Your task to perform on an android device: change timer sound Image 0: 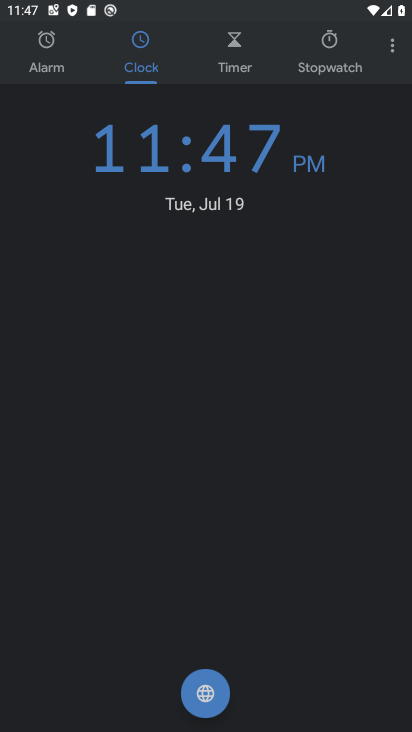
Step 0: drag from (325, 635) to (293, 191)
Your task to perform on an android device: change timer sound Image 1: 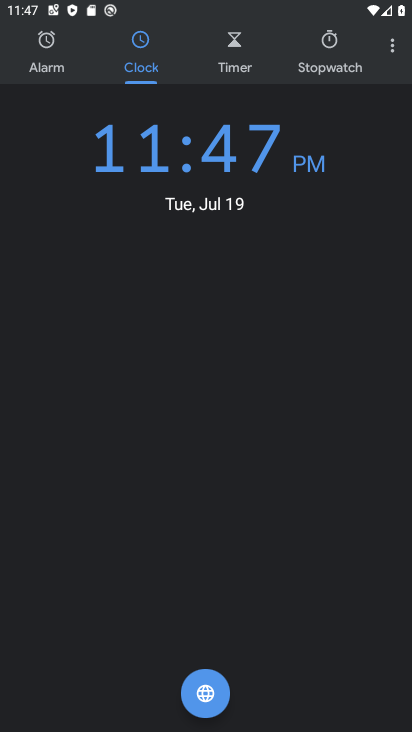
Step 1: press back button
Your task to perform on an android device: change timer sound Image 2: 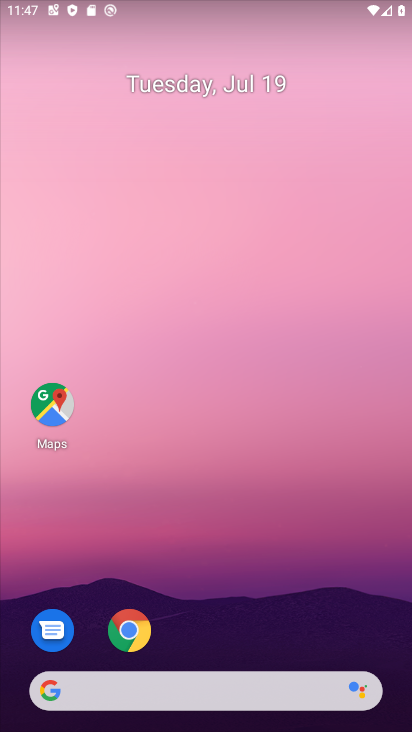
Step 2: drag from (229, 637) to (126, 75)
Your task to perform on an android device: change timer sound Image 3: 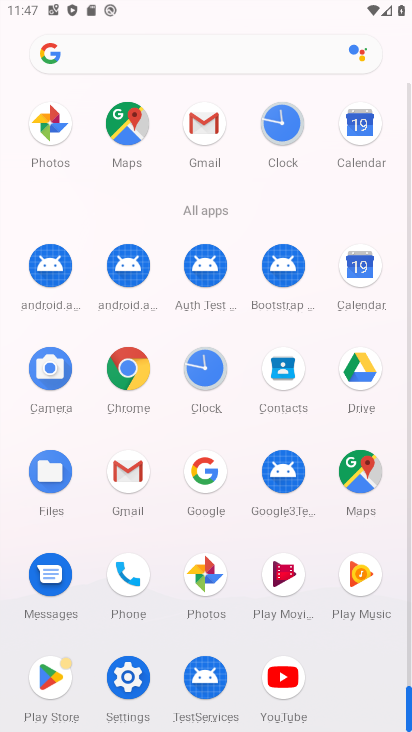
Step 3: click (274, 127)
Your task to perform on an android device: change timer sound Image 4: 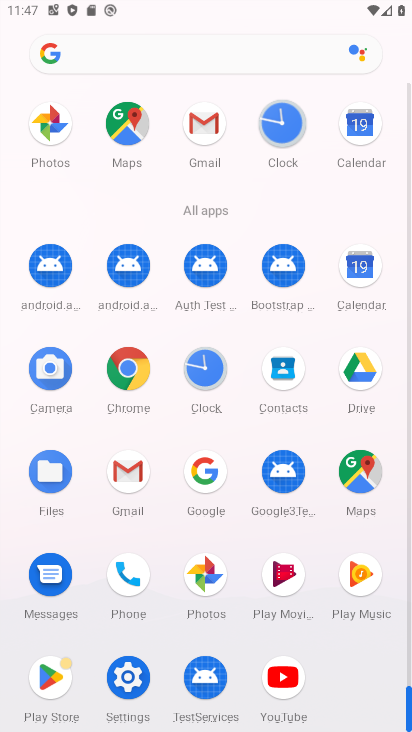
Step 4: click (276, 126)
Your task to perform on an android device: change timer sound Image 5: 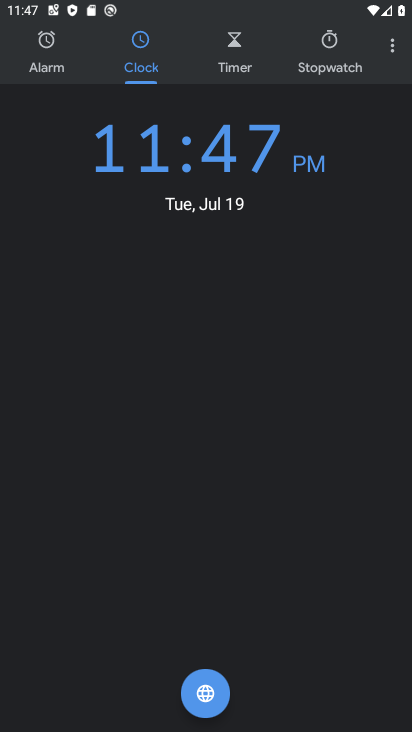
Step 5: click (383, 45)
Your task to perform on an android device: change timer sound Image 6: 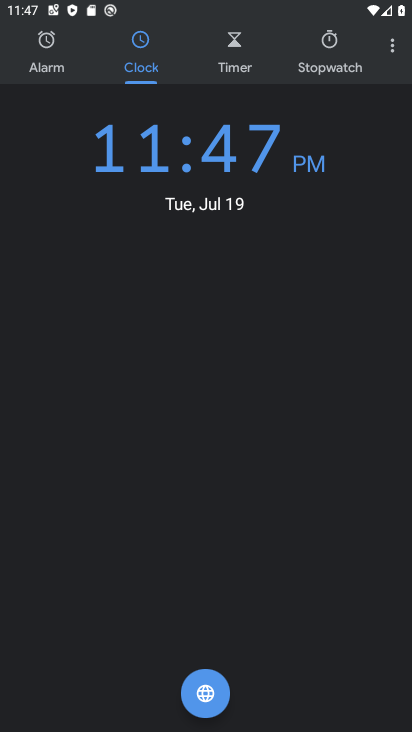
Step 6: click (383, 45)
Your task to perform on an android device: change timer sound Image 7: 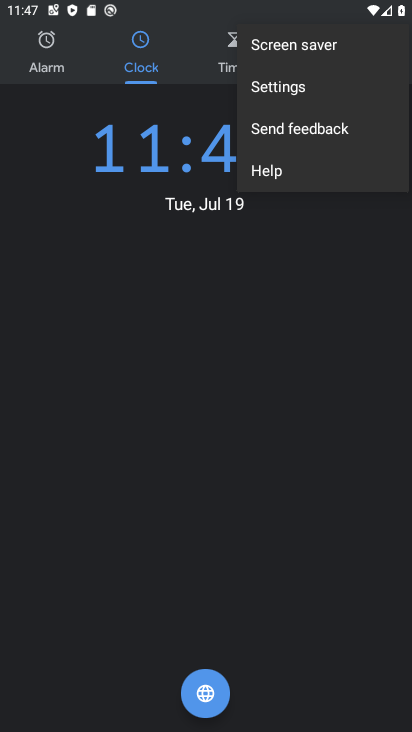
Step 7: click (278, 90)
Your task to perform on an android device: change timer sound Image 8: 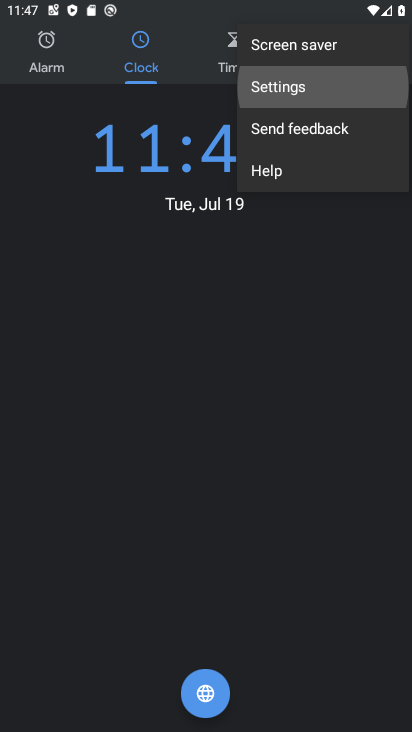
Step 8: click (290, 75)
Your task to perform on an android device: change timer sound Image 9: 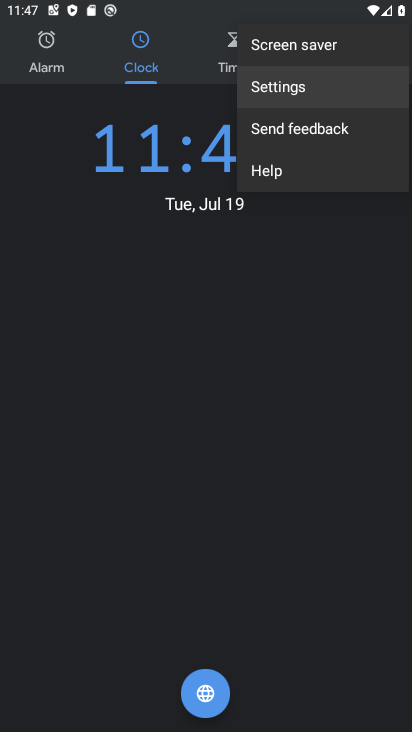
Step 9: click (291, 77)
Your task to perform on an android device: change timer sound Image 10: 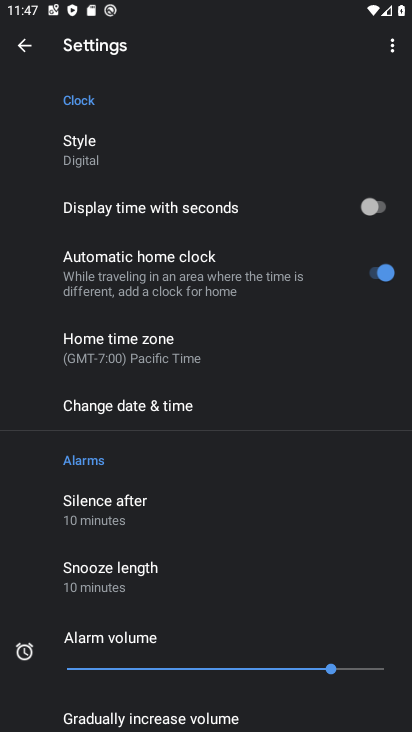
Step 10: drag from (102, 553) to (94, 220)
Your task to perform on an android device: change timer sound Image 11: 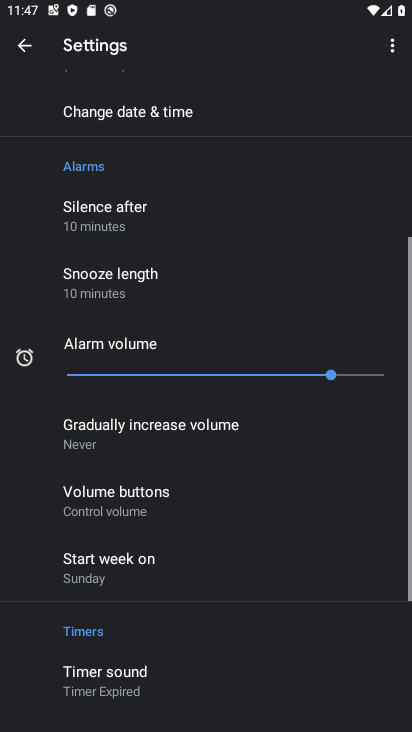
Step 11: drag from (122, 422) to (126, 260)
Your task to perform on an android device: change timer sound Image 12: 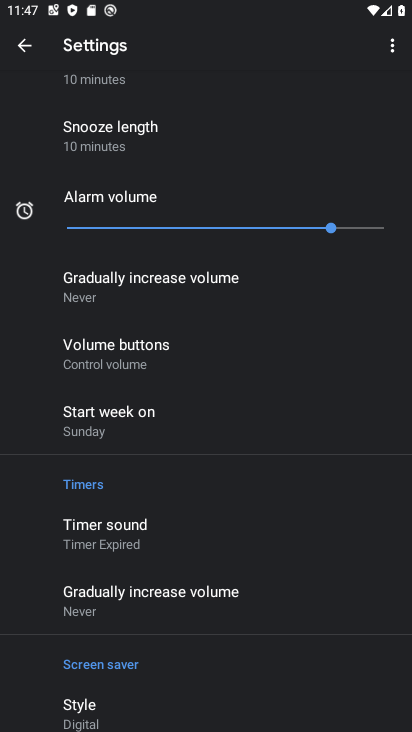
Step 12: click (101, 538)
Your task to perform on an android device: change timer sound Image 13: 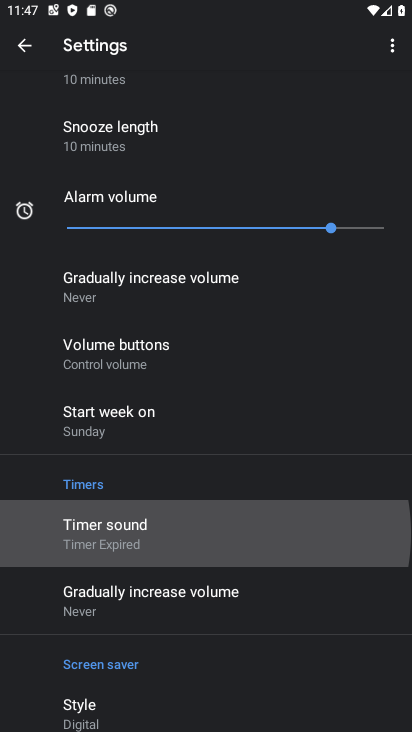
Step 13: click (100, 537)
Your task to perform on an android device: change timer sound Image 14: 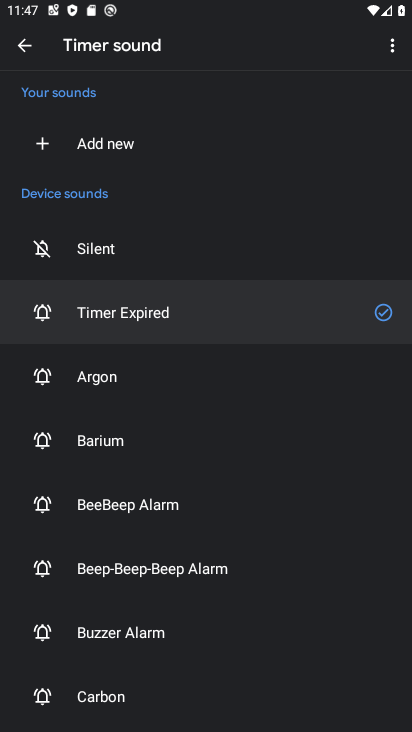
Step 14: click (63, 508)
Your task to perform on an android device: change timer sound Image 15: 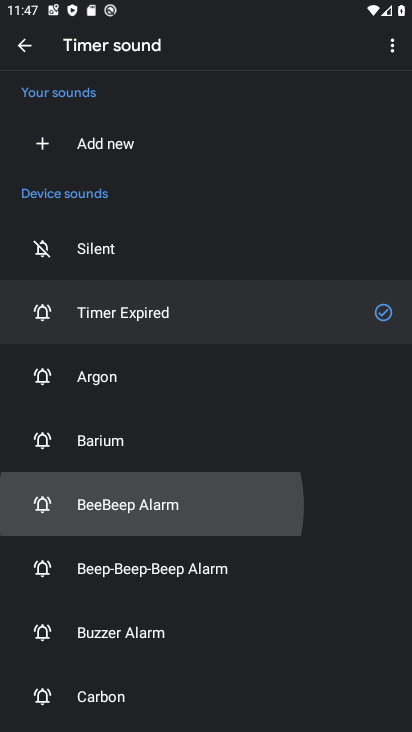
Step 15: click (70, 500)
Your task to perform on an android device: change timer sound Image 16: 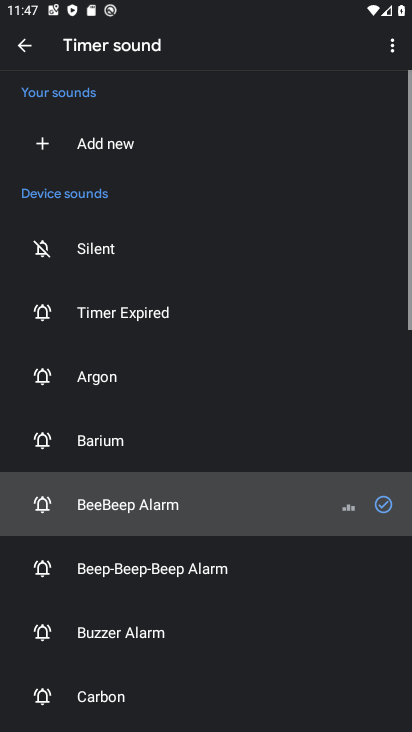
Step 16: click (73, 502)
Your task to perform on an android device: change timer sound Image 17: 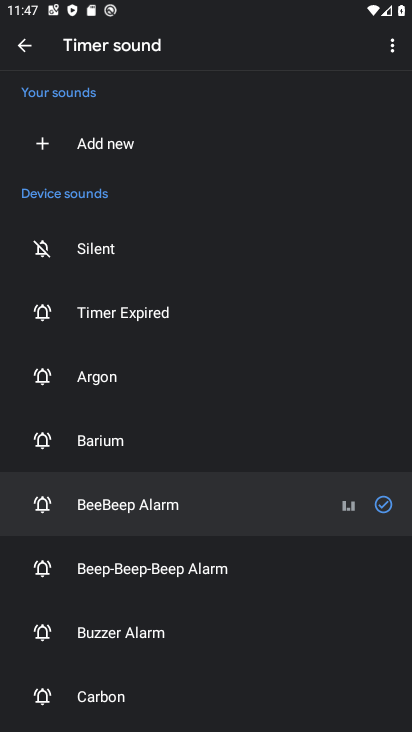
Step 17: task complete